Your task to perform on an android device: toggle notification dots Image 0: 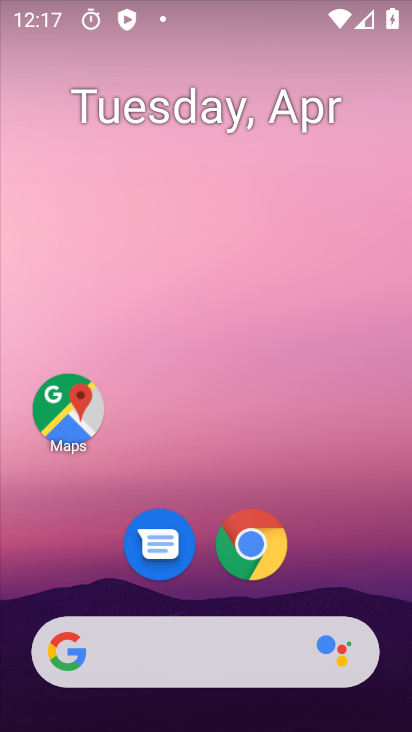
Step 0: drag from (334, 528) to (327, 4)
Your task to perform on an android device: toggle notification dots Image 1: 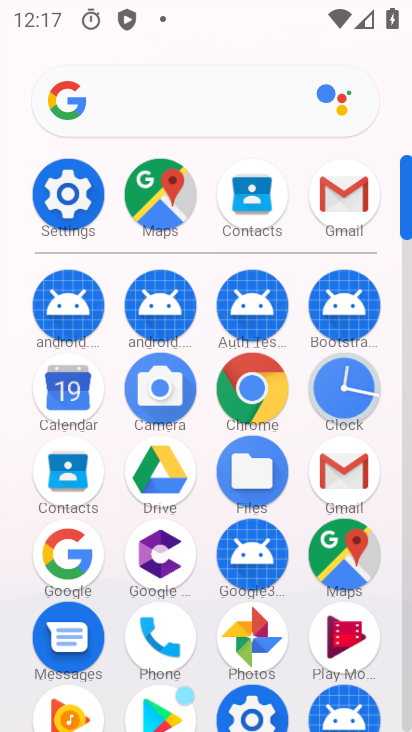
Step 1: click (59, 200)
Your task to perform on an android device: toggle notification dots Image 2: 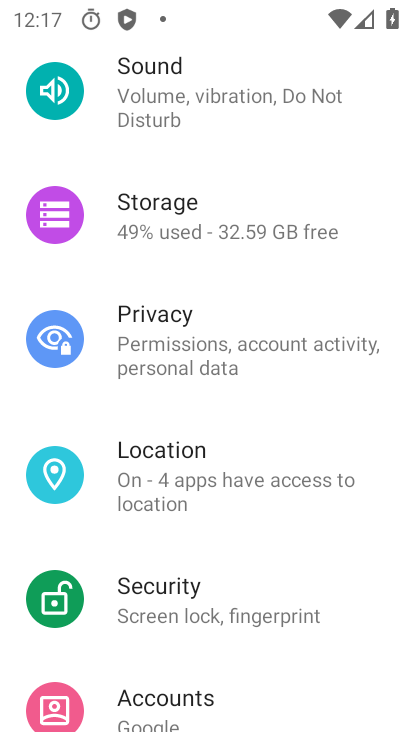
Step 2: drag from (397, 148) to (403, 382)
Your task to perform on an android device: toggle notification dots Image 3: 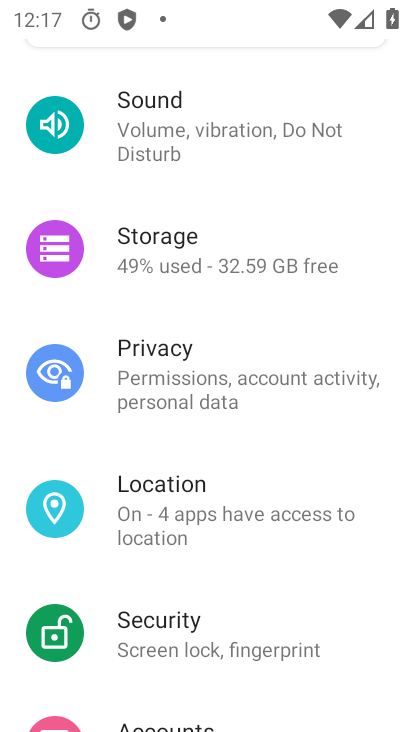
Step 3: drag from (391, 168) to (390, 482)
Your task to perform on an android device: toggle notification dots Image 4: 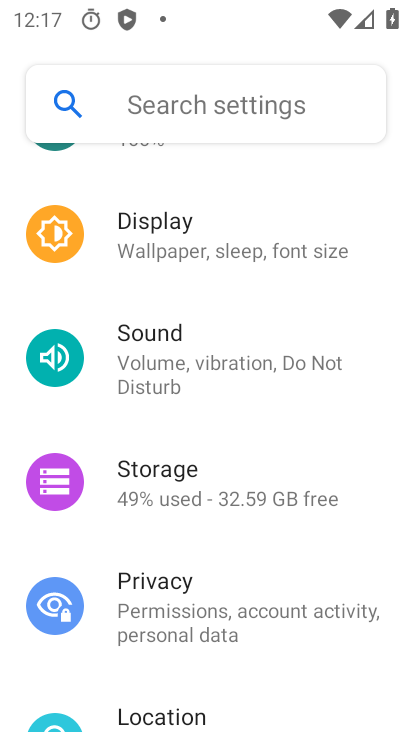
Step 4: drag from (401, 222) to (378, 605)
Your task to perform on an android device: toggle notification dots Image 5: 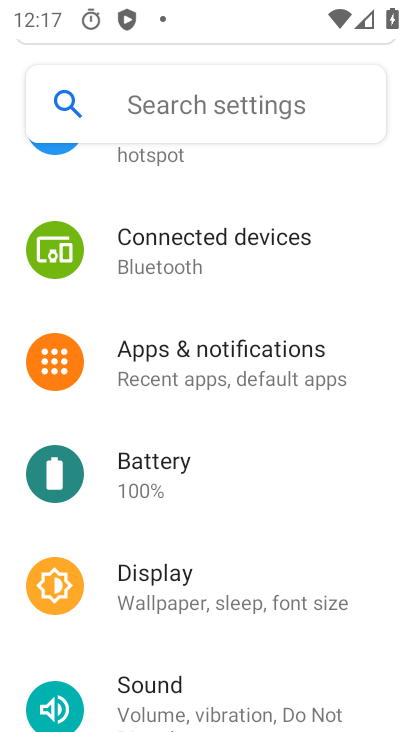
Step 5: click (165, 359)
Your task to perform on an android device: toggle notification dots Image 6: 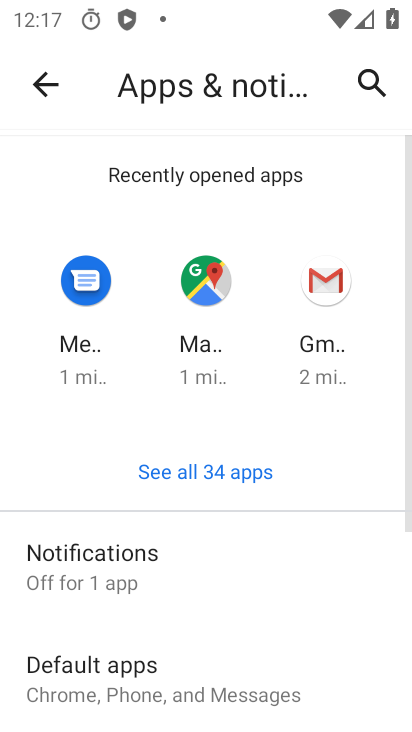
Step 6: click (133, 556)
Your task to perform on an android device: toggle notification dots Image 7: 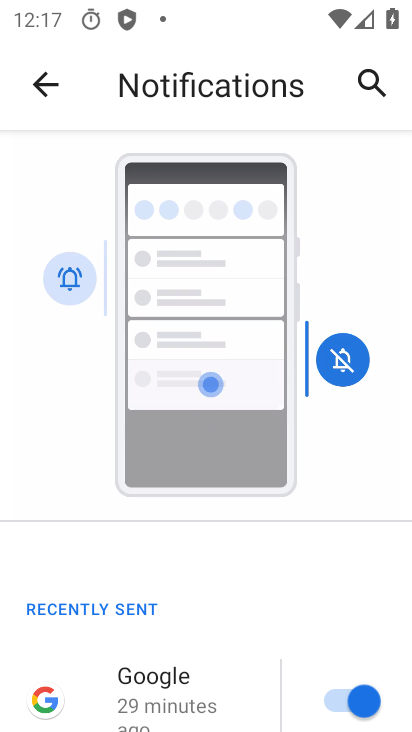
Step 7: drag from (385, 626) to (377, 228)
Your task to perform on an android device: toggle notification dots Image 8: 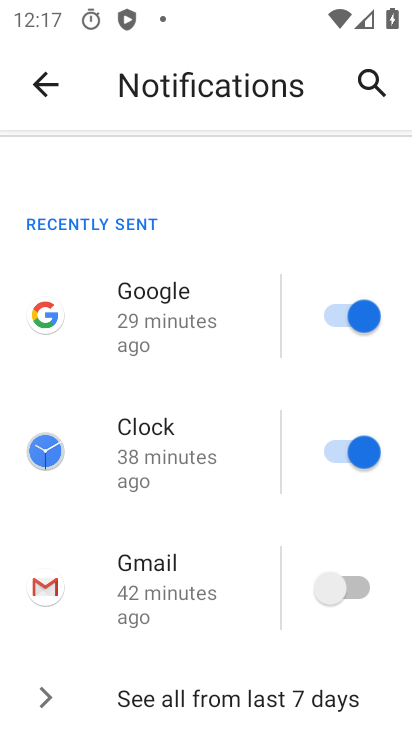
Step 8: drag from (377, 673) to (381, 355)
Your task to perform on an android device: toggle notification dots Image 9: 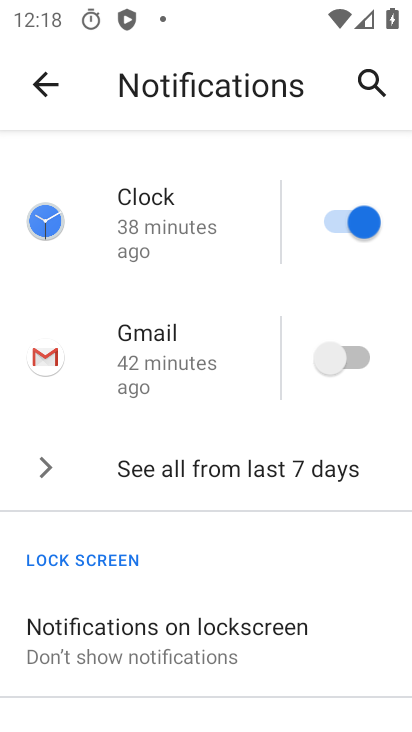
Step 9: drag from (353, 584) to (335, 325)
Your task to perform on an android device: toggle notification dots Image 10: 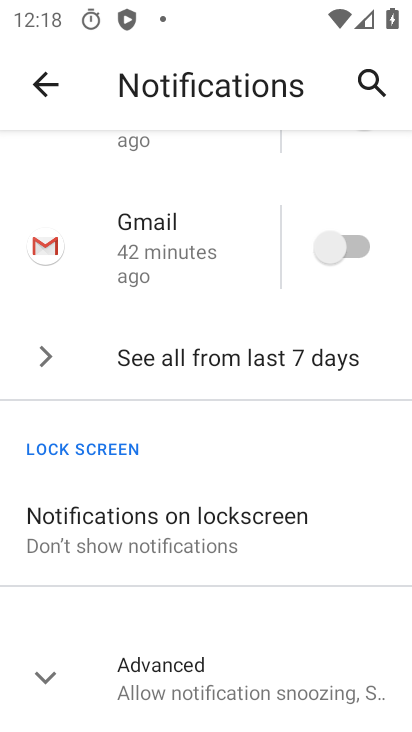
Step 10: click (47, 684)
Your task to perform on an android device: toggle notification dots Image 11: 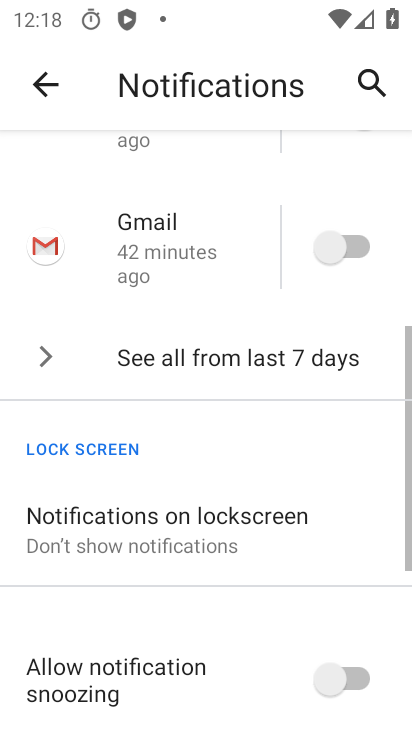
Step 11: drag from (267, 677) to (241, 281)
Your task to perform on an android device: toggle notification dots Image 12: 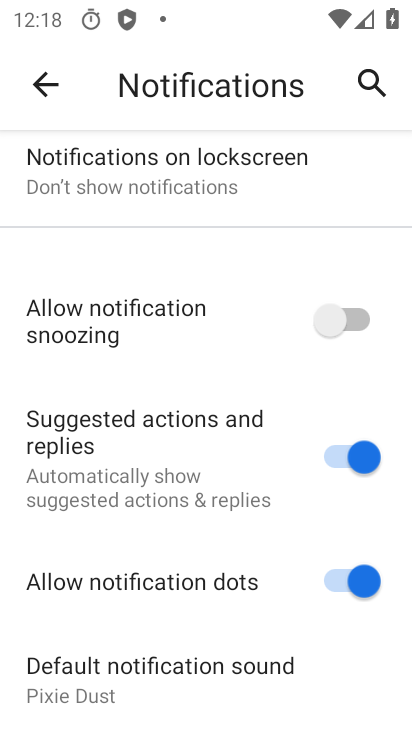
Step 12: click (348, 592)
Your task to perform on an android device: toggle notification dots Image 13: 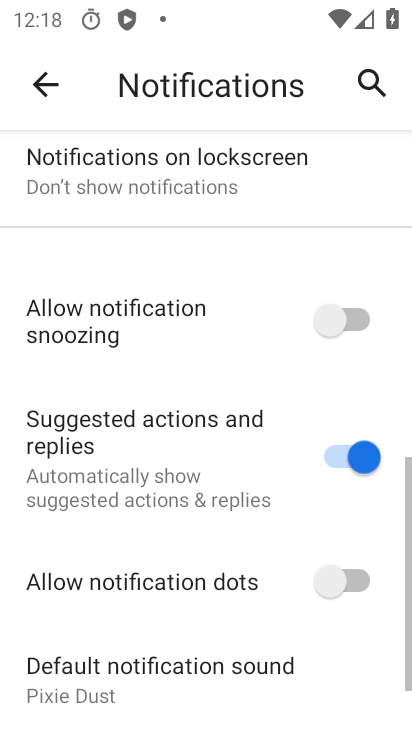
Step 13: task complete